Your task to perform on an android device: search for starred emails in the gmail app Image 0: 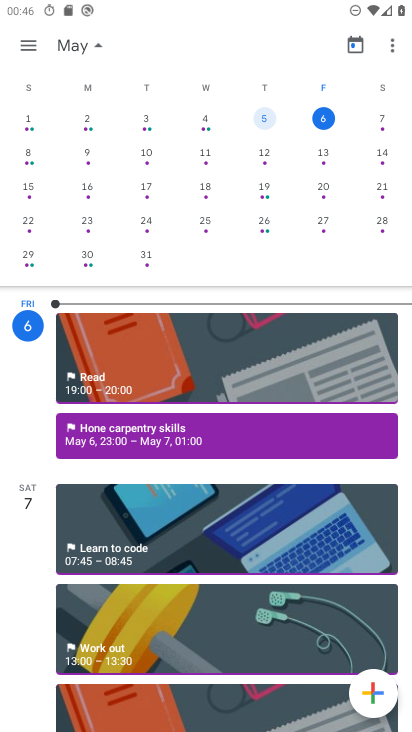
Step 0: press home button
Your task to perform on an android device: search for starred emails in the gmail app Image 1: 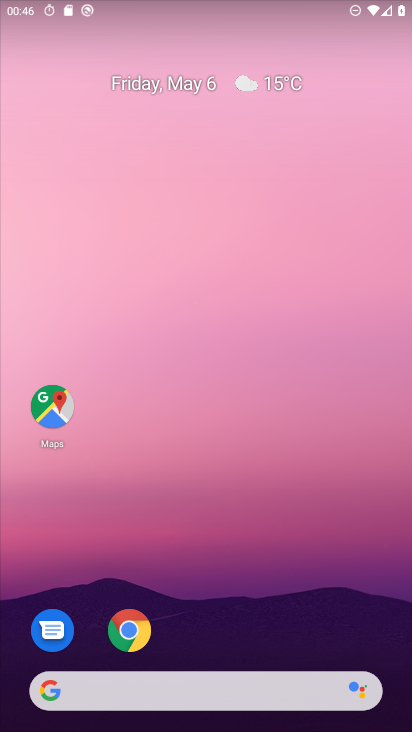
Step 1: drag from (320, 552) to (281, 14)
Your task to perform on an android device: search for starred emails in the gmail app Image 2: 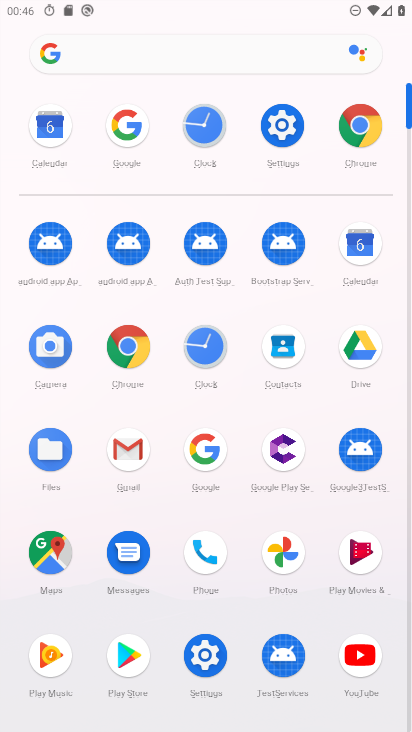
Step 2: click (128, 448)
Your task to perform on an android device: search for starred emails in the gmail app Image 3: 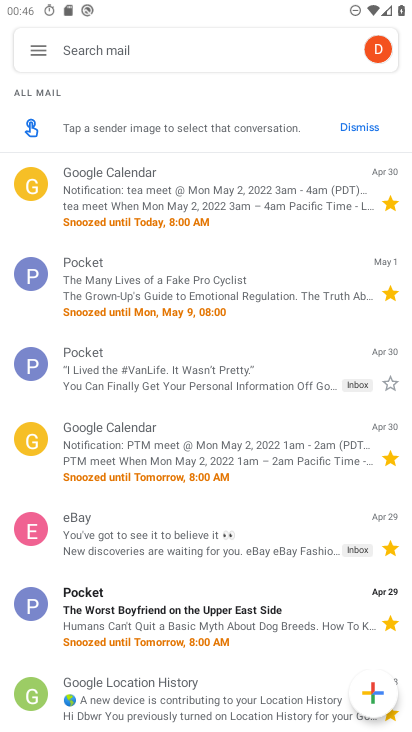
Step 3: click (36, 50)
Your task to perform on an android device: search for starred emails in the gmail app Image 4: 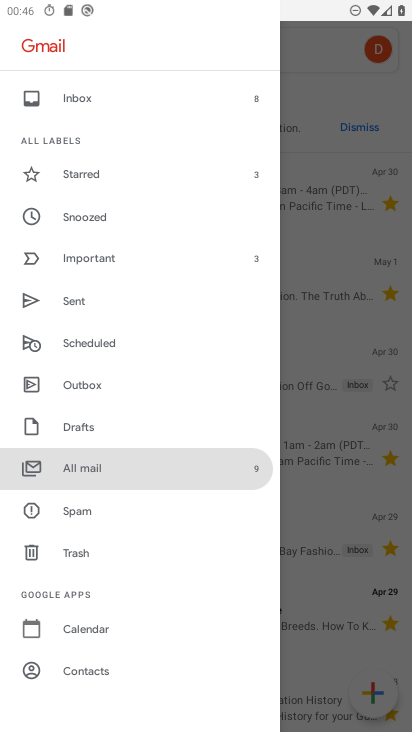
Step 4: drag from (151, 243) to (141, 563)
Your task to perform on an android device: search for starred emails in the gmail app Image 5: 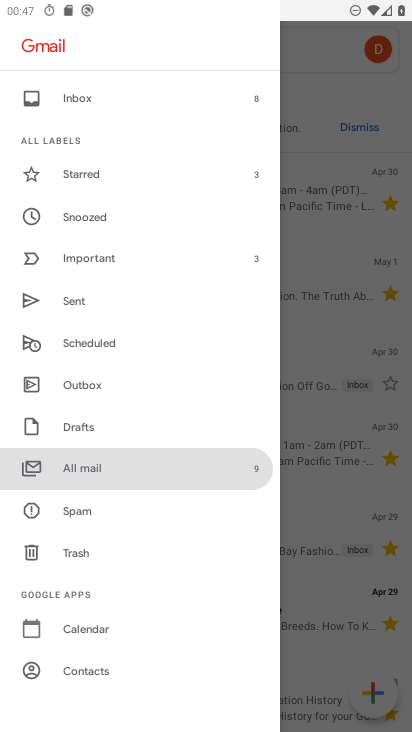
Step 5: drag from (111, 570) to (225, 140)
Your task to perform on an android device: search for starred emails in the gmail app Image 6: 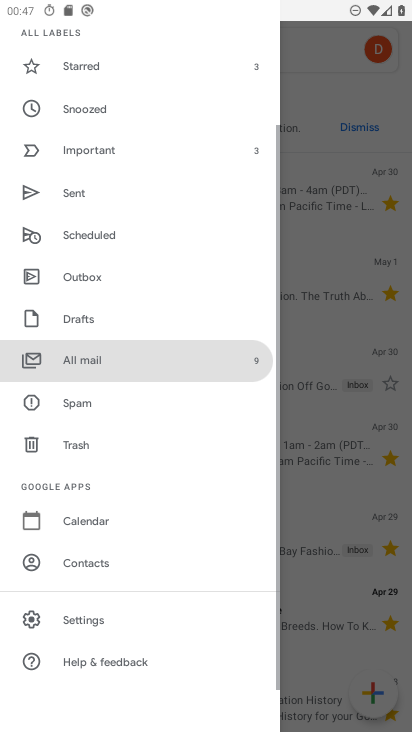
Step 6: drag from (174, 162) to (148, 605)
Your task to perform on an android device: search for starred emails in the gmail app Image 7: 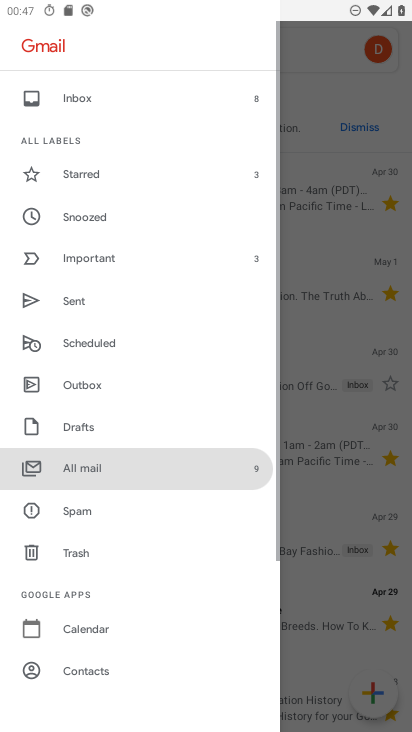
Step 7: click (107, 177)
Your task to perform on an android device: search for starred emails in the gmail app Image 8: 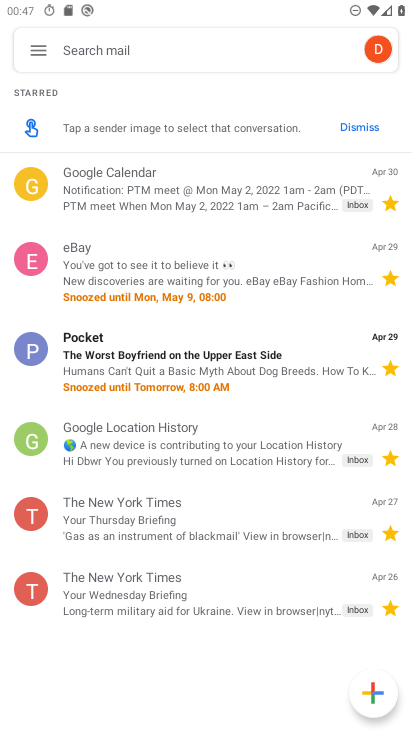
Step 8: task complete